Your task to perform on an android device: Go to settings Image 0: 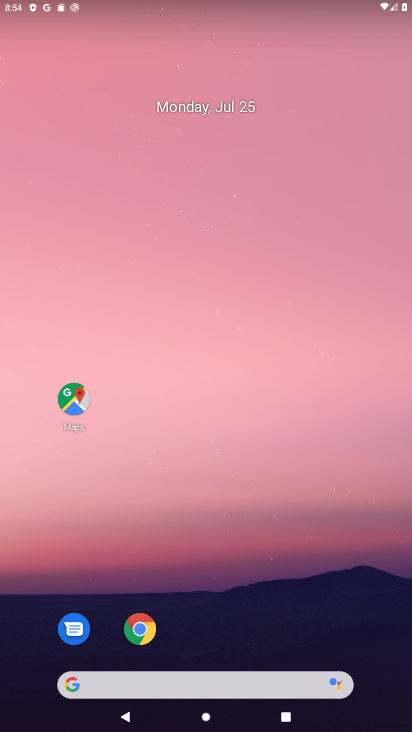
Step 0: drag from (201, 659) to (304, 0)
Your task to perform on an android device: Go to settings Image 1: 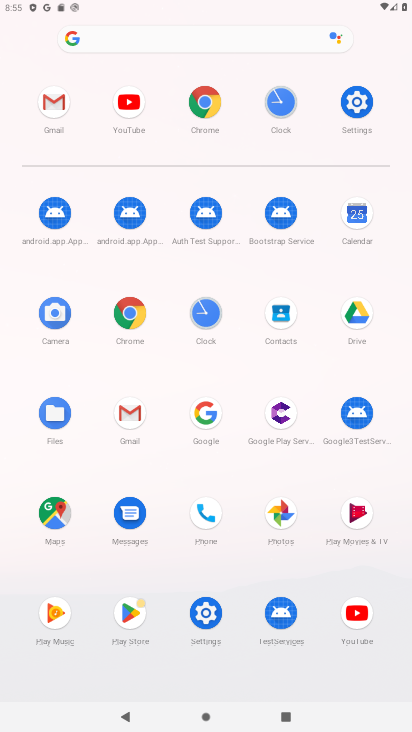
Step 1: click (364, 121)
Your task to perform on an android device: Go to settings Image 2: 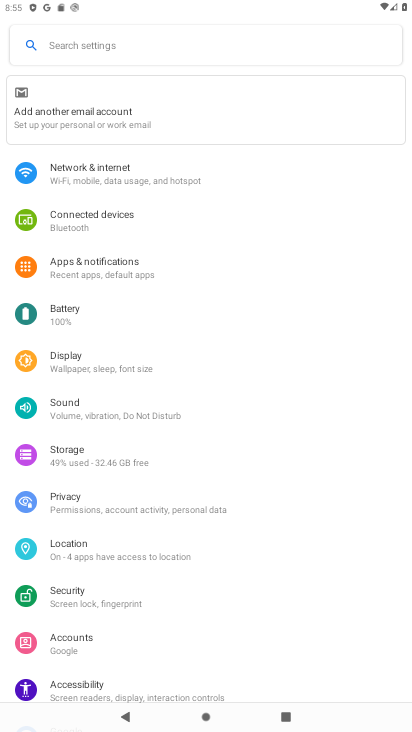
Step 2: task complete